Your task to perform on an android device: What time is it in Los Angeles? Image 0: 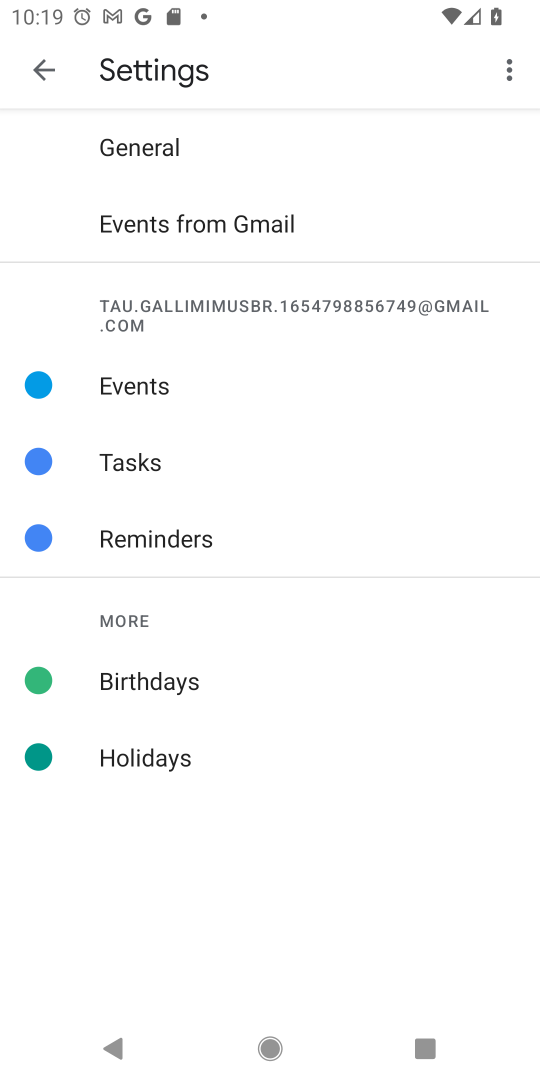
Step 0: press home button
Your task to perform on an android device: What time is it in Los Angeles? Image 1: 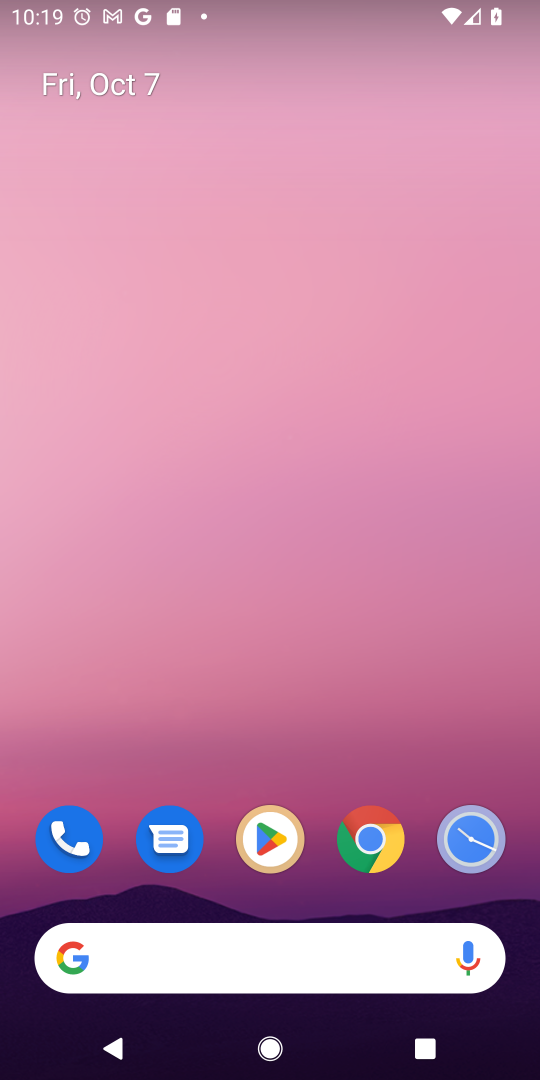
Step 1: click (390, 854)
Your task to perform on an android device: What time is it in Los Angeles? Image 2: 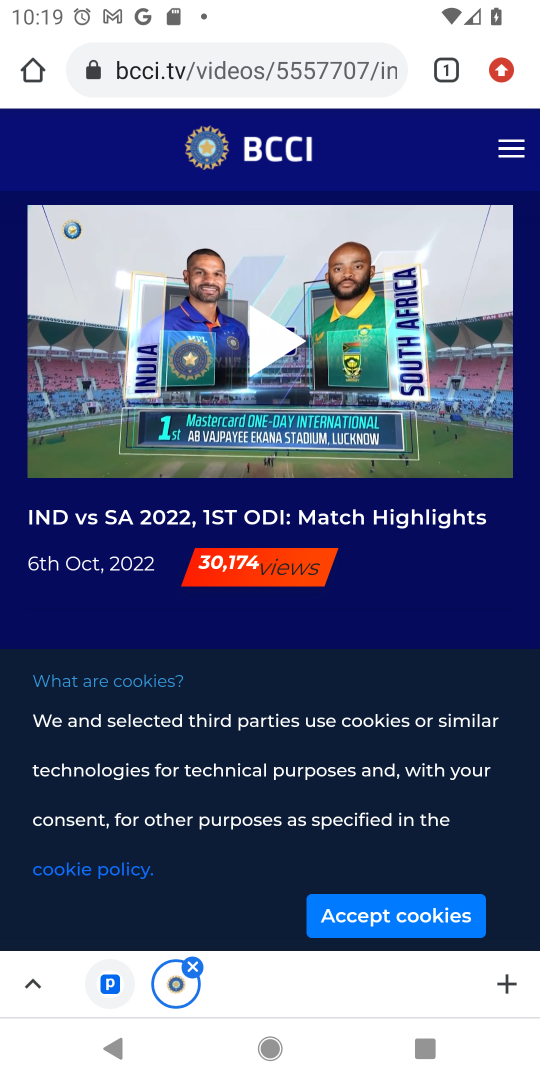
Step 2: click (251, 67)
Your task to perform on an android device: What time is it in Los Angeles? Image 3: 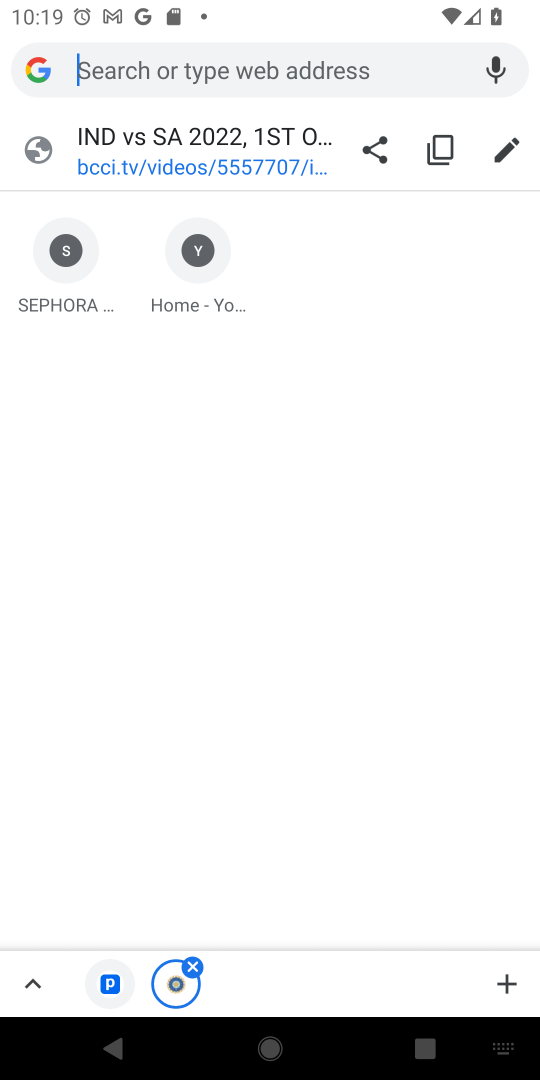
Step 3: type "what time is it in los angeles"
Your task to perform on an android device: What time is it in Los Angeles? Image 4: 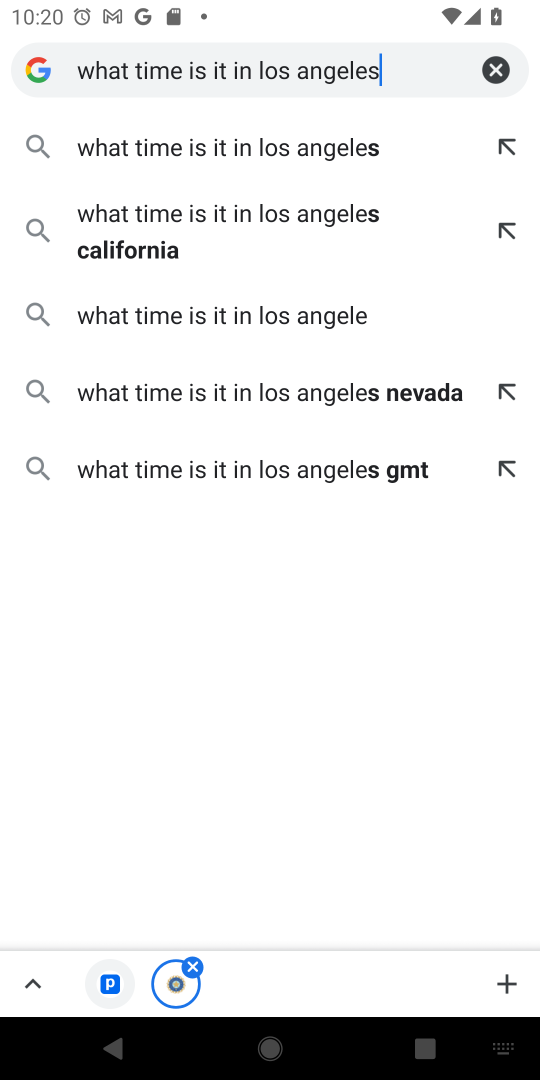
Step 4: type ""
Your task to perform on an android device: What time is it in Los Angeles? Image 5: 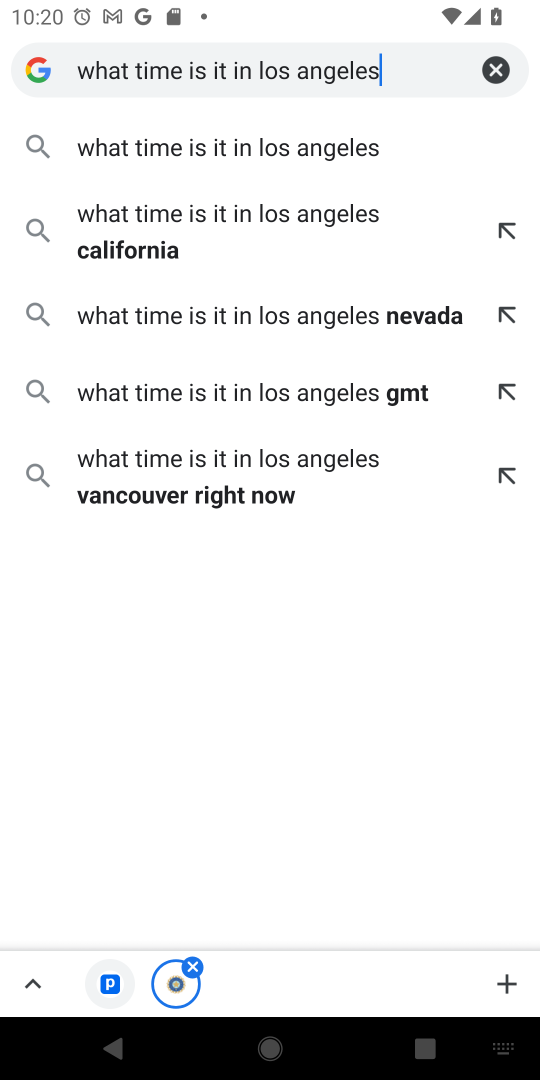
Step 5: click (290, 143)
Your task to perform on an android device: What time is it in Los Angeles? Image 6: 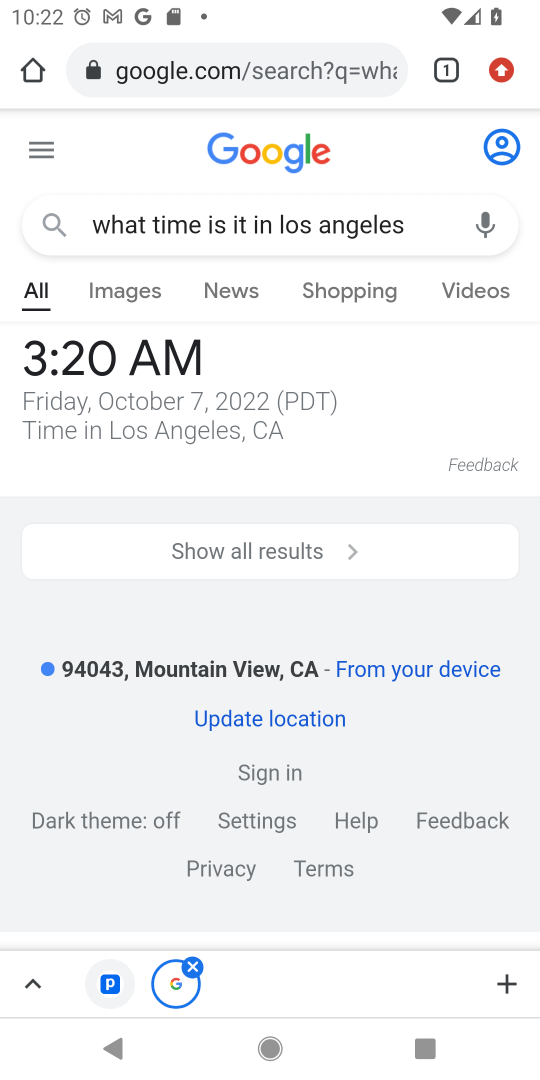
Step 6: task complete